Your task to perform on an android device: Open network settings Image 0: 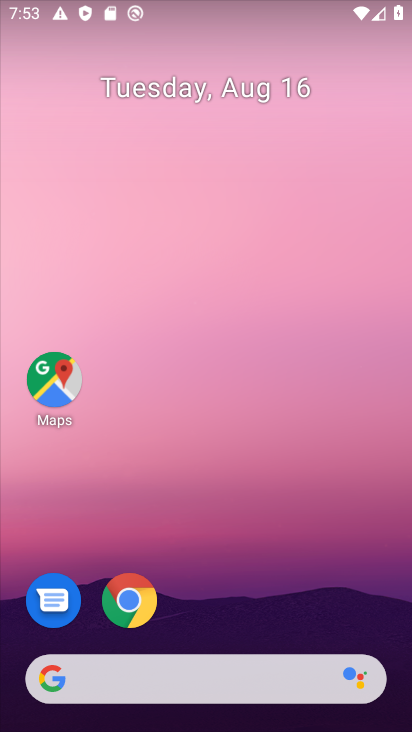
Step 0: drag from (297, 540) to (410, 108)
Your task to perform on an android device: Open network settings Image 1: 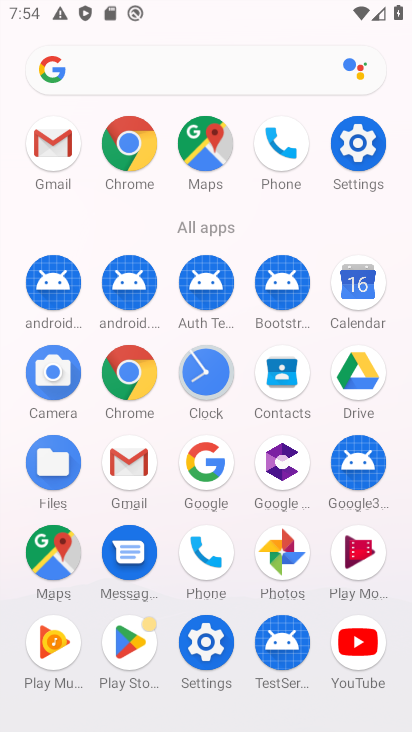
Step 1: click (347, 146)
Your task to perform on an android device: Open network settings Image 2: 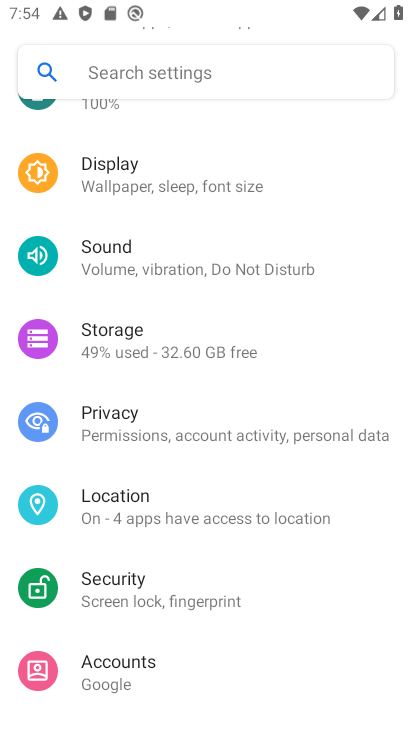
Step 2: drag from (267, 255) to (195, 667)
Your task to perform on an android device: Open network settings Image 3: 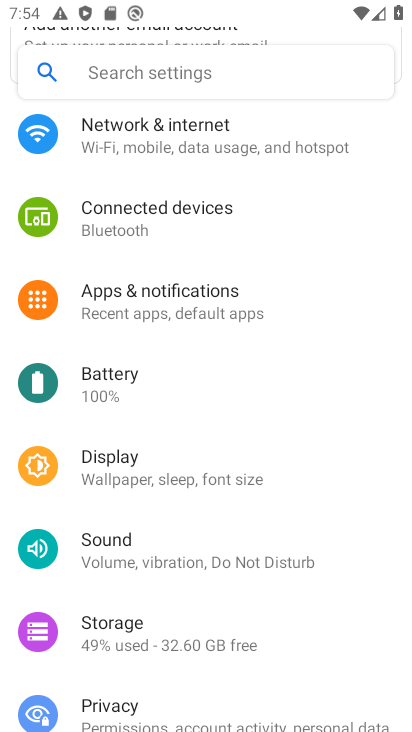
Step 3: drag from (332, 221) to (245, 618)
Your task to perform on an android device: Open network settings Image 4: 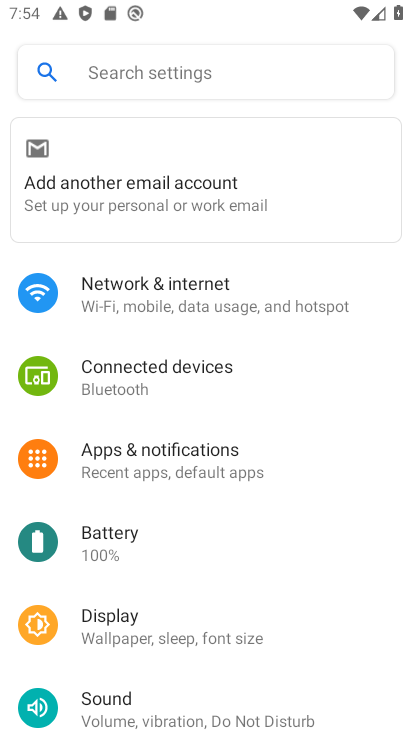
Step 4: click (206, 290)
Your task to perform on an android device: Open network settings Image 5: 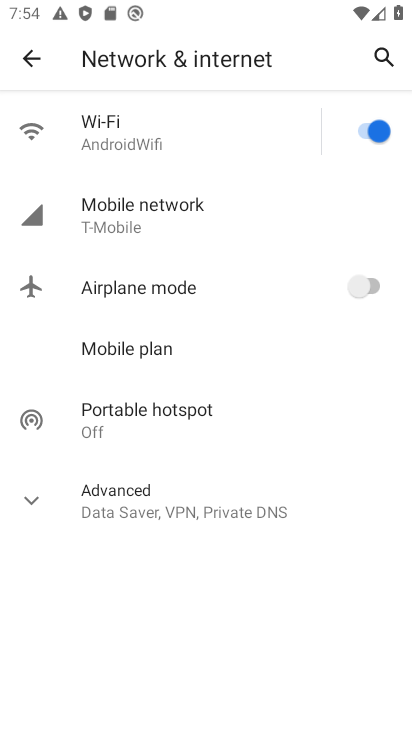
Step 5: task complete